Your task to perform on an android device: change the clock display to show seconds Image 0: 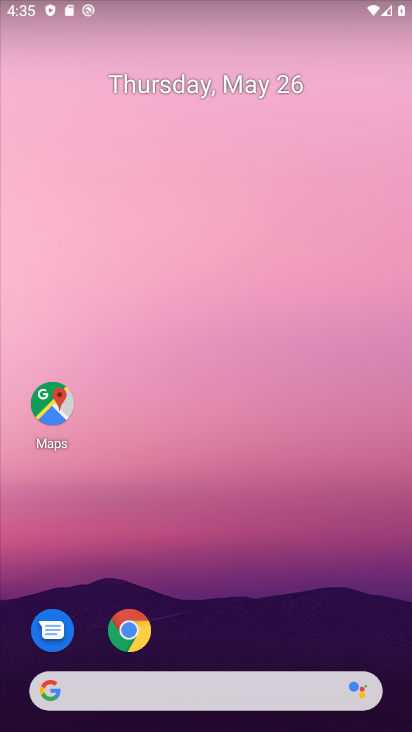
Step 0: drag from (245, 670) to (290, 162)
Your task to perform on an android device: change the clock display to show seconds Image 1: 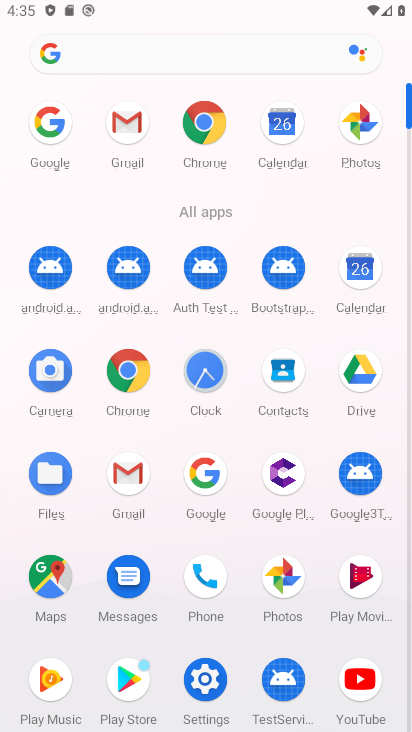
Step 1: click (211, 370)
Your task to perform on an android device: change the clock display to show seconds Image 2: 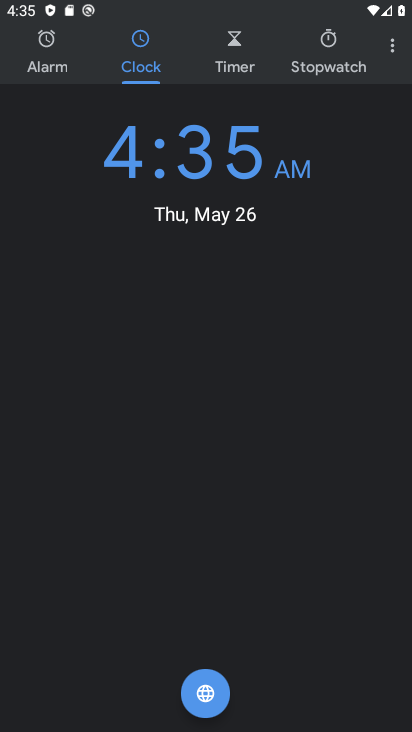
Step 2: click (393, 45)
Your task to perform on an android device: change the clock display to show seconds Image 3: 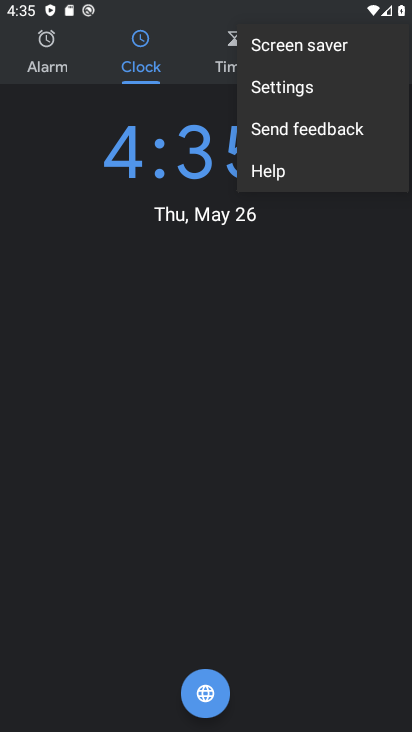
Step 3: click (271, 84)
Your task to perform on an android device: change the clock display to show seconds Image 4: 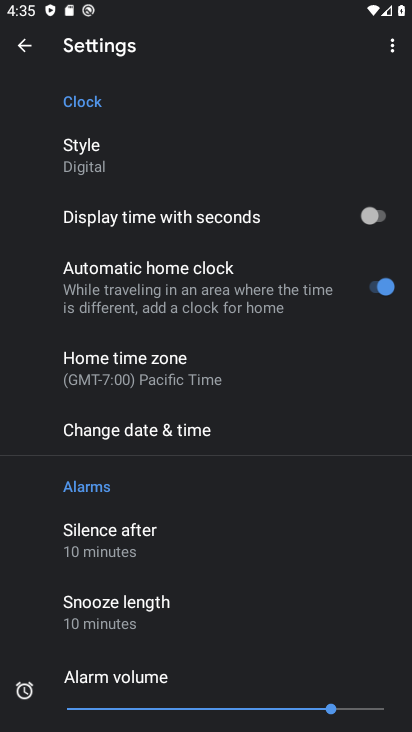
Step 4: click (90, 164)
Your task to perform on an android device: change the clock display to show seconds Image 5: 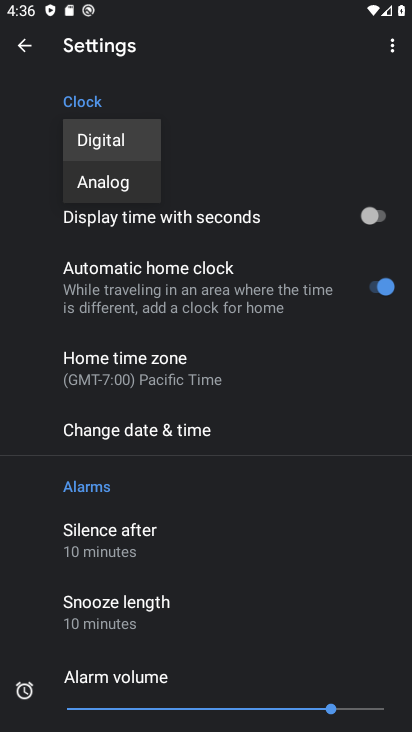
Step 5: click (381, 216)
Your task to perform on an android device: change the clock display to show seconds Image 6: 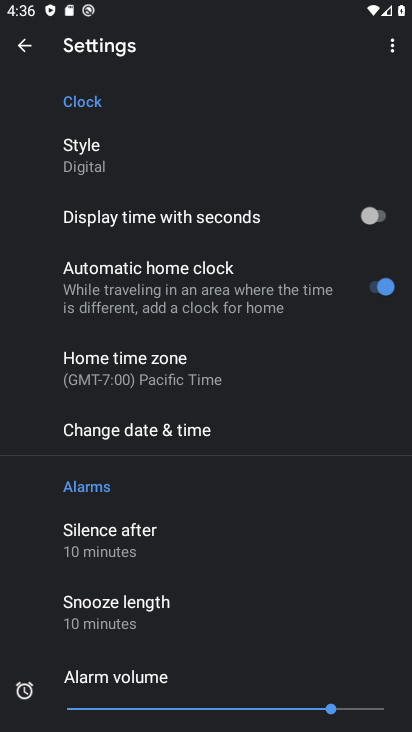
Step 6: click (374, 219)
Your task to perform on an android device: change the clock display to show seconds Image 7: 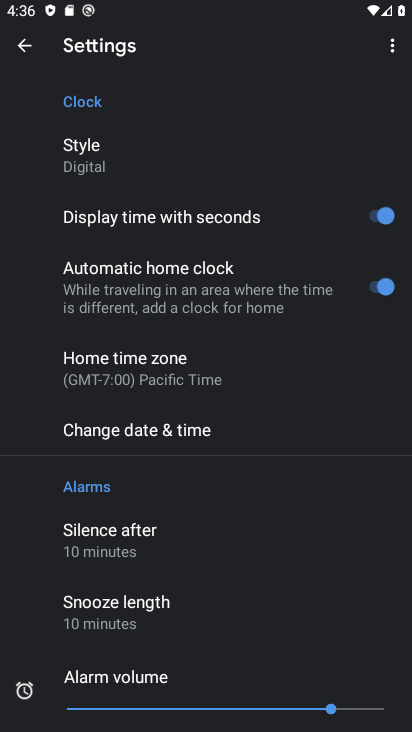
Step 7: task complete